Your task to perform on an android device: toggle airplane mode Image 0: 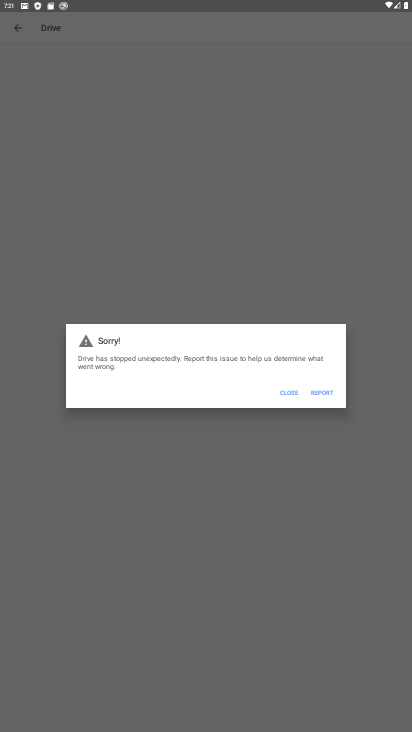
Step 0: press home button
Your task to perform on an android device: toggle airplane mode Image 1: 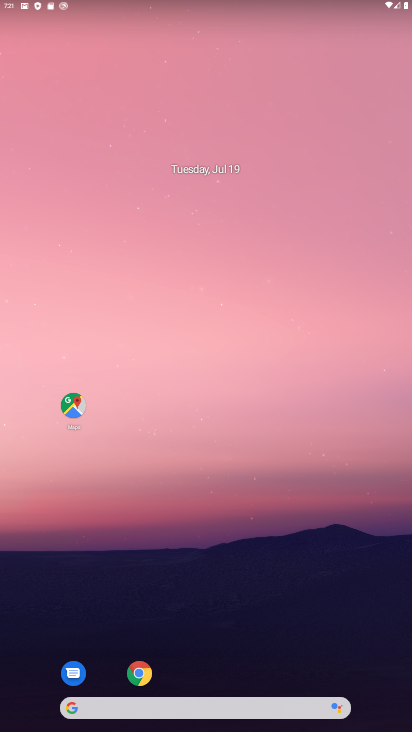
Step 1: drag from (242, 602) to (304, 1)
Your task to perform on an android device: toggle airplane mode Image 2: 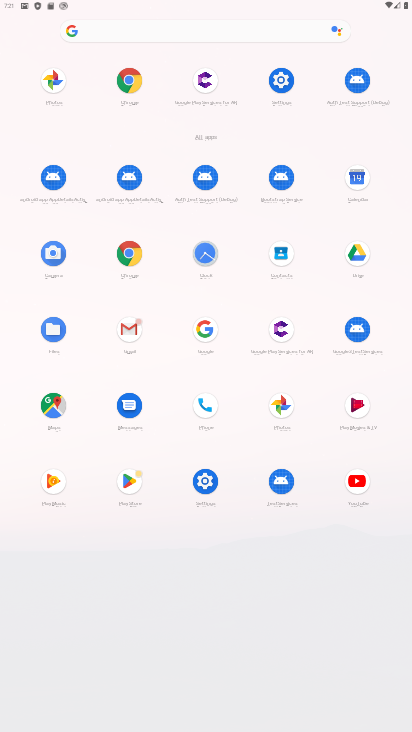
Step 2: click (289, 73)
Your task to perform on an android device: toggle airplane mode Image 3: 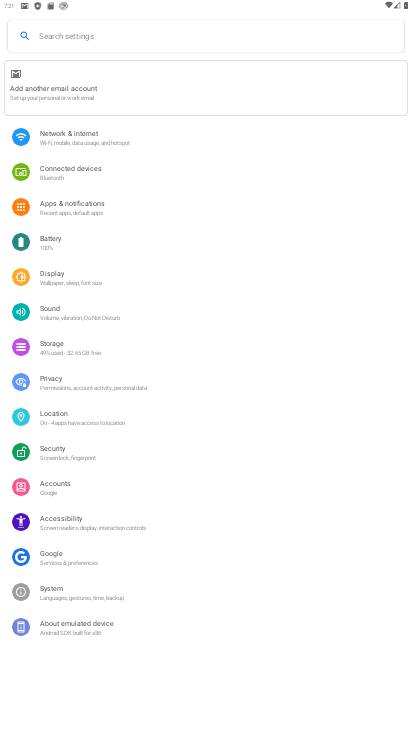
Step 3: click (107, 141)
Your task to perform on an android device: toggle airplane mode Image 4: 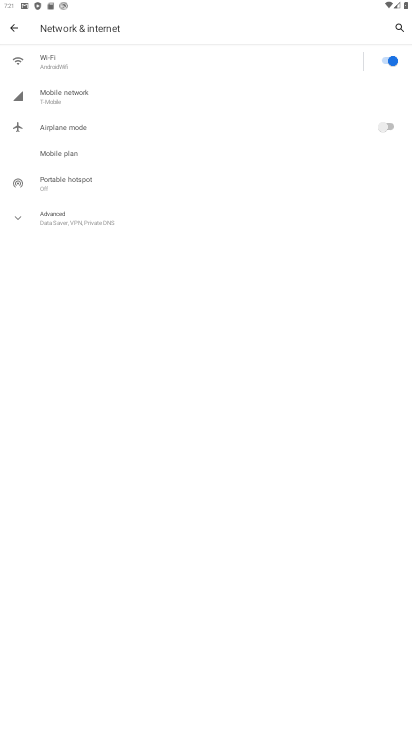
Step 4: click (387, 132)
Your task to perform on an android device: toggle airplane mode Image 5: 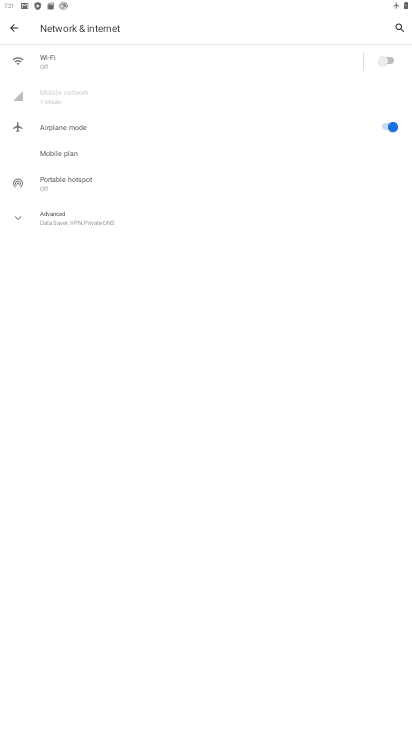
Step 5: task complete